Your task to perform on an android device: Search for razer huntsman on newegg, select the first entry, add it to the cart, then select checkout. Image 0: 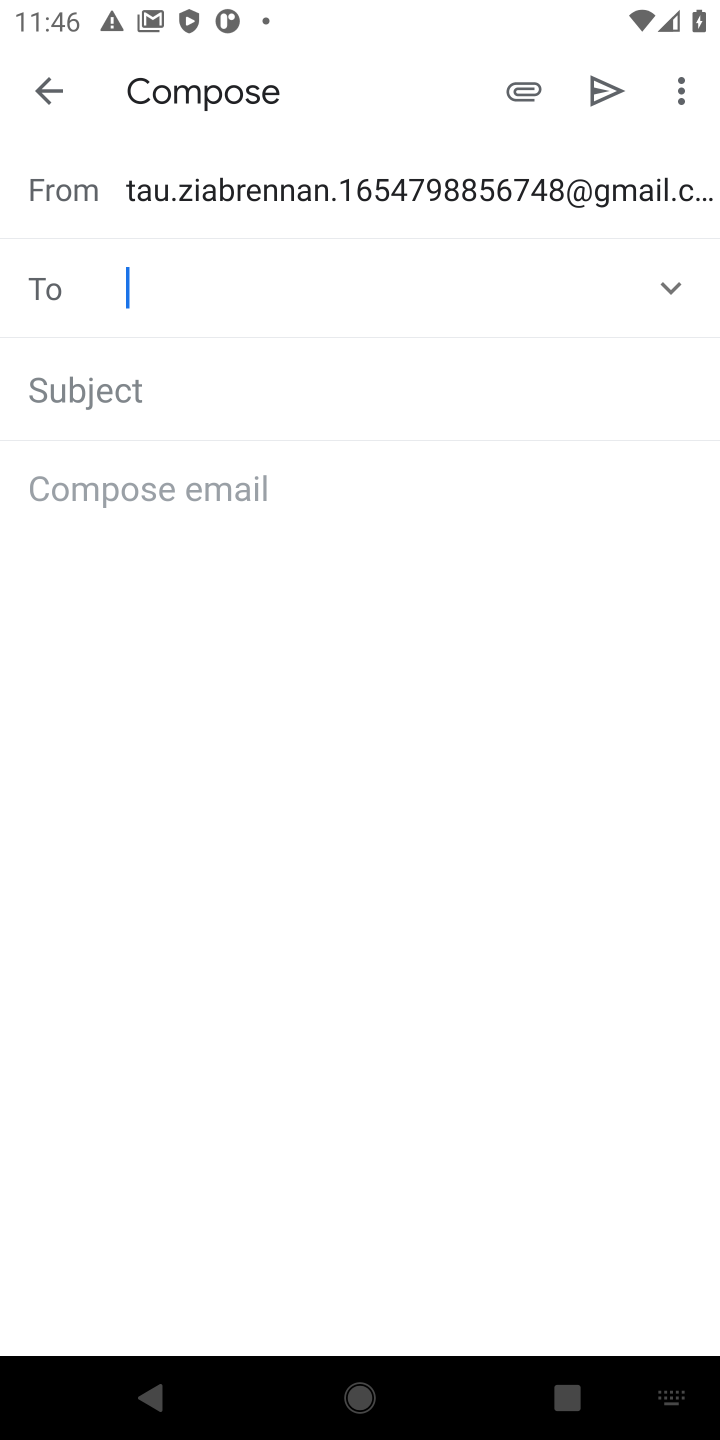
Step 0: press home button
Your task to perform on an android device: Search for razer huntsman on newegg, select the first entry, add it to the cart, then select checkout. Image 1: 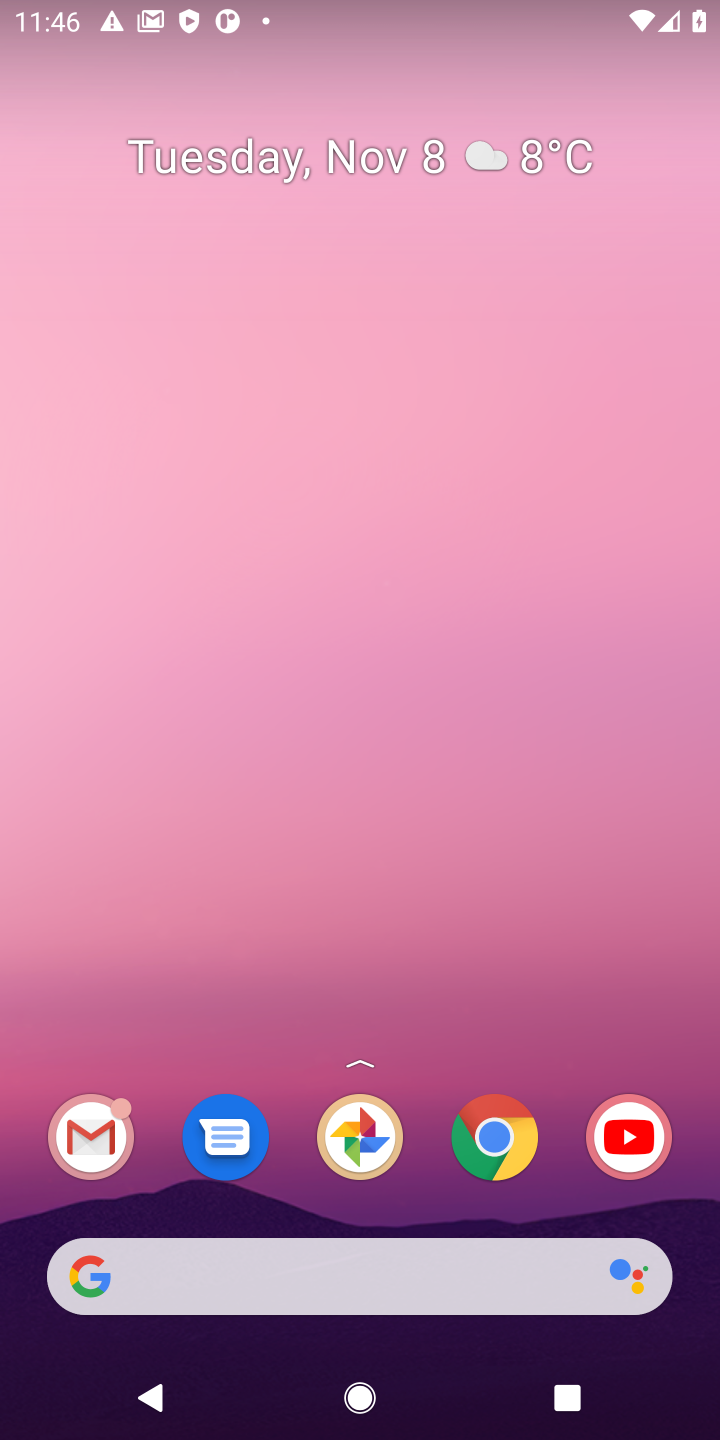
Step 1: click (498, 1147)
Your task to perform on an android device: Search for razer huntsman on newegg, select the first entry, add it to the cart, then select checkout. Image 2: 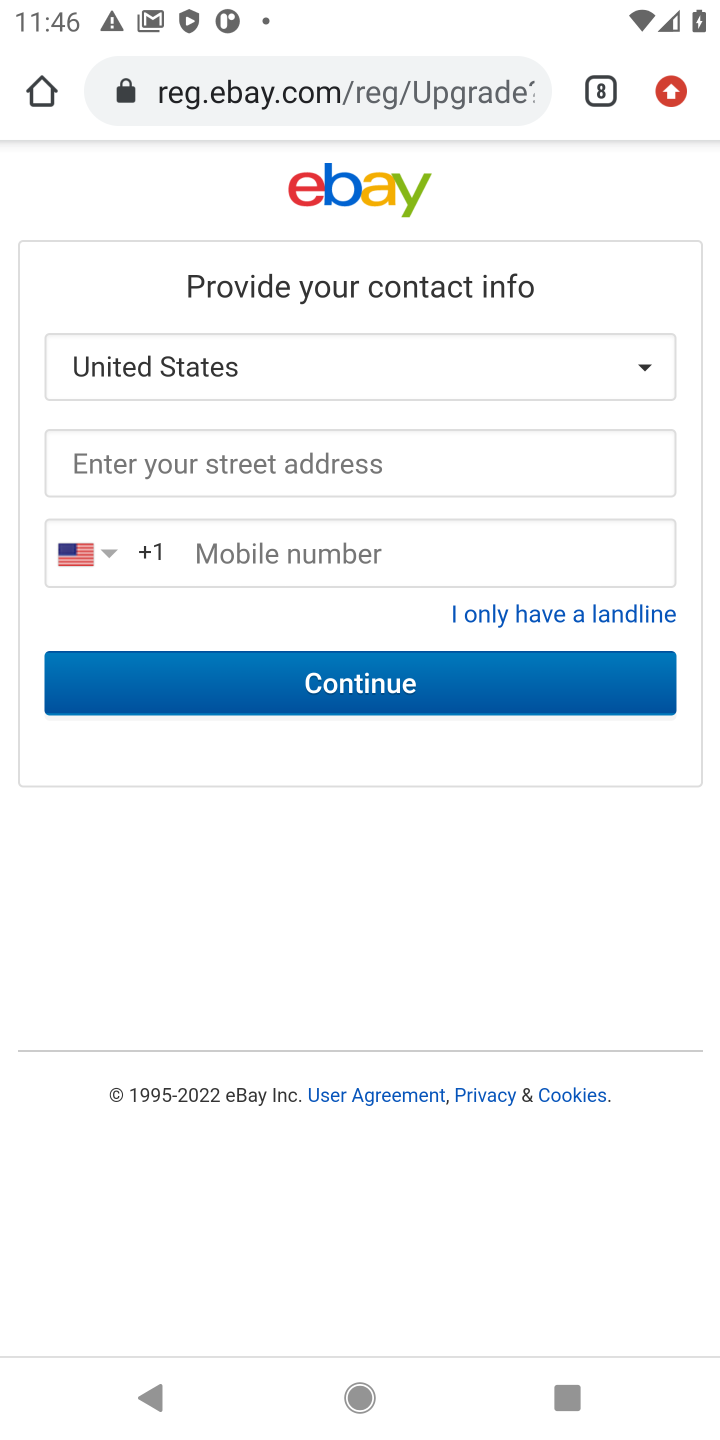
Step 2: click (593, 87)
Your task to perform on an android device: Search for razer huntsman on newegg, select the first entry, add it to the cart, then select checkout. Image 3: 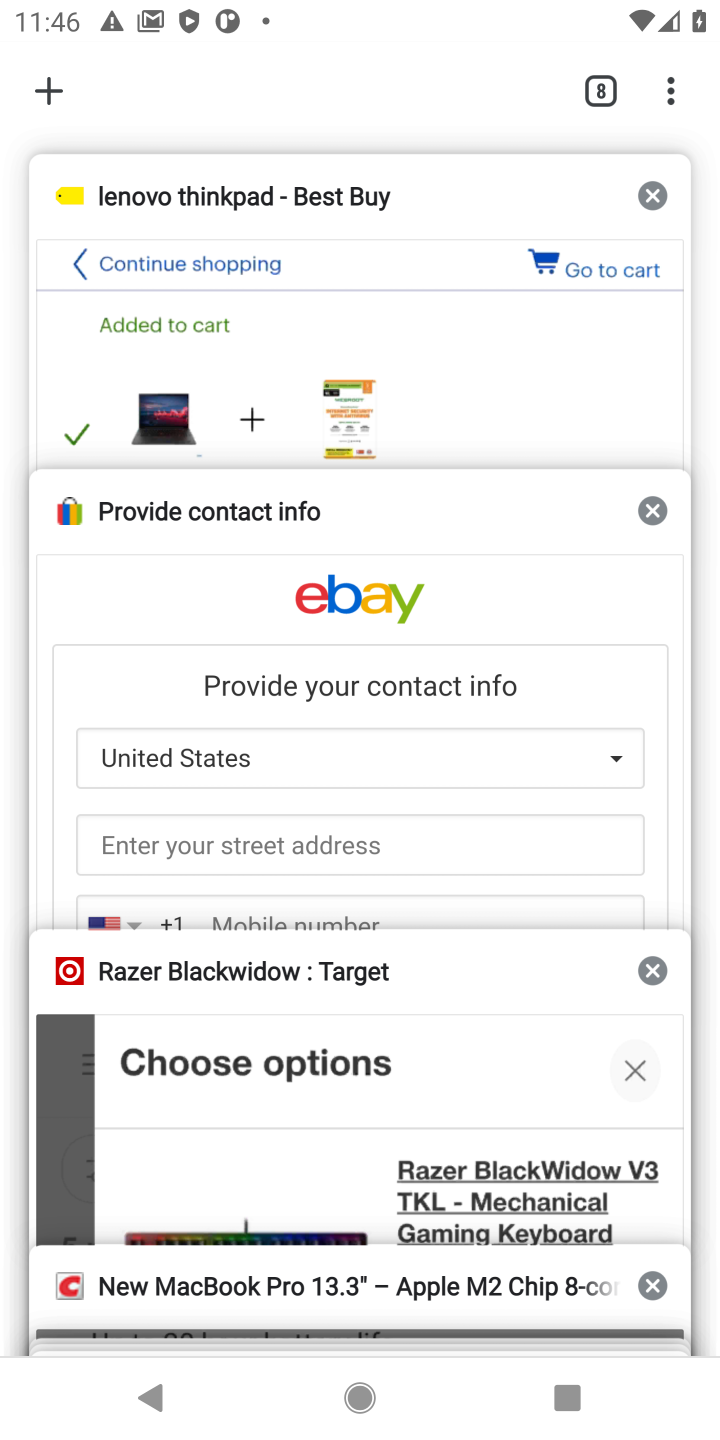
Step 3: drag from (215, 1278) to (424, 631)
Your task to perform on an android device: Search for razer huntsman on newegg, select the first entry, add it to the cart, then select checkout. Image 4: 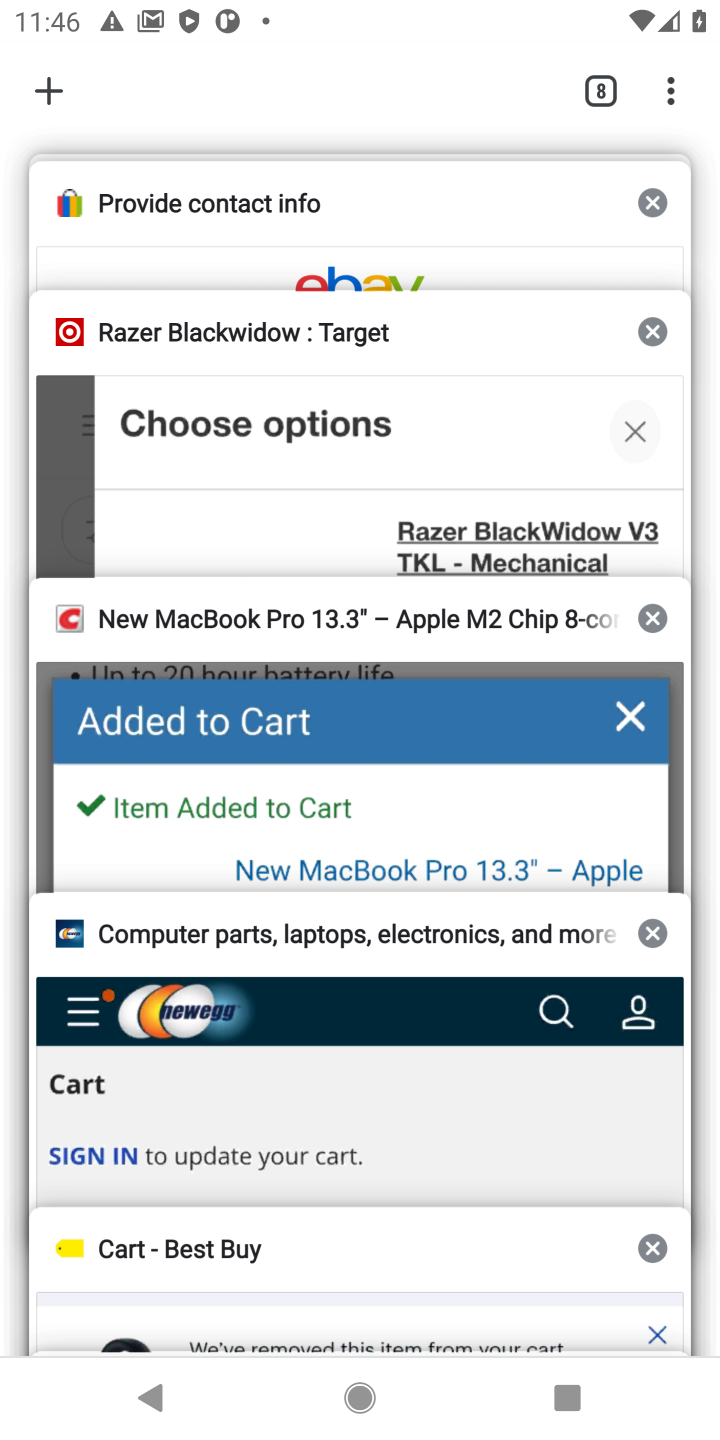
Step 4: click (375, 1079)
Your task to perform on an android device: Search for razer huntsman on newegg, select the first entry, add it to the cart, then select checkout. Image 5: 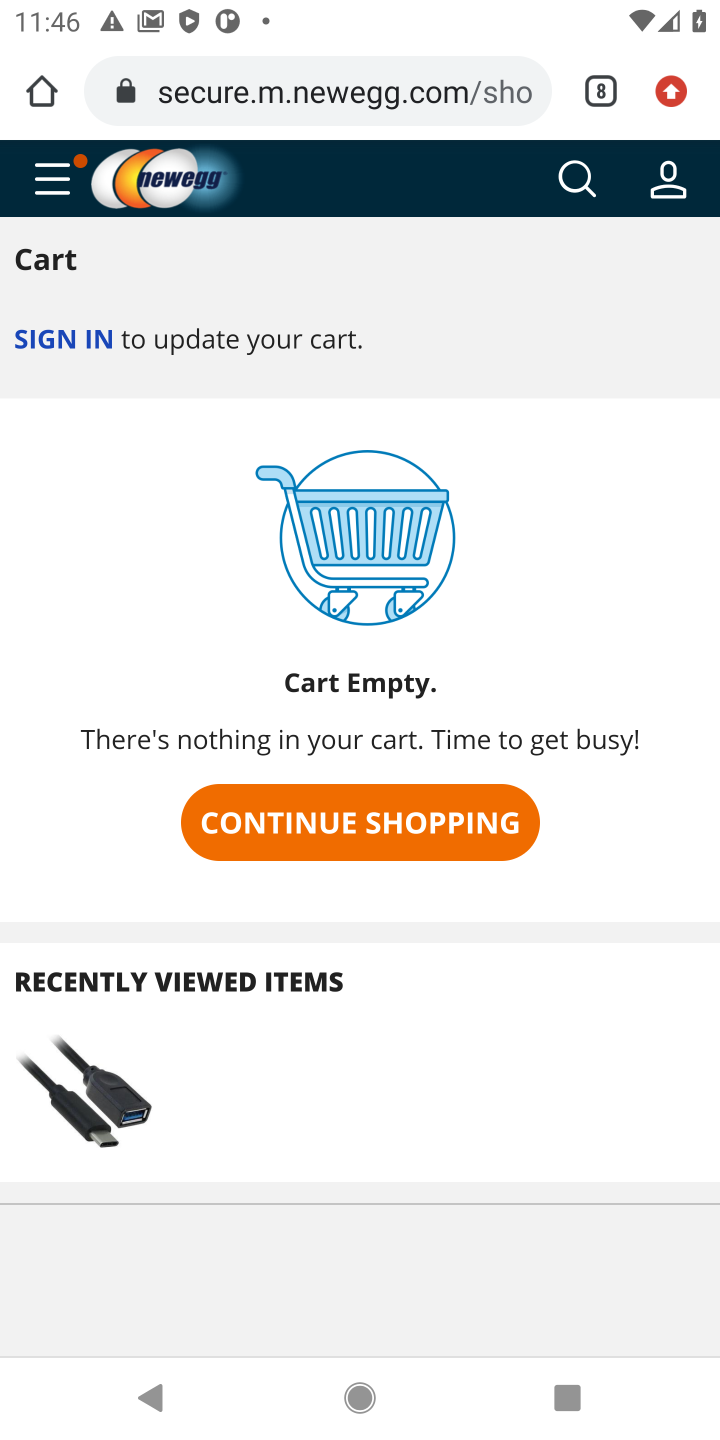
Step 5: click (578, 181)
Your task to perform on an android device: Search for razer huntsman on newegg, select the first entry, add it to the cart, then select checkout. Image 6: 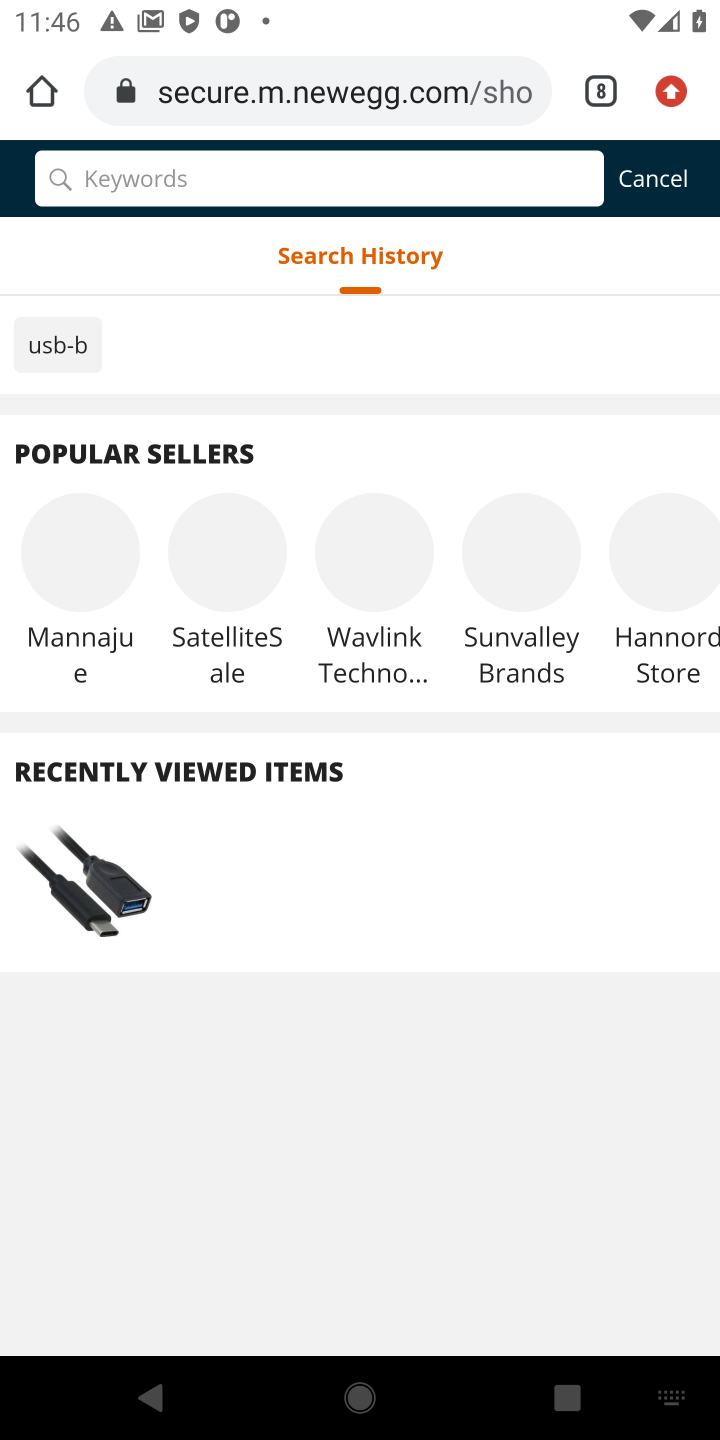
Step 6: type "razer huntsman"
Your task to perform on an android device: Search for razer huntsman on newegg, select the first entry, add it to the cart, then select checkout. Image 7: 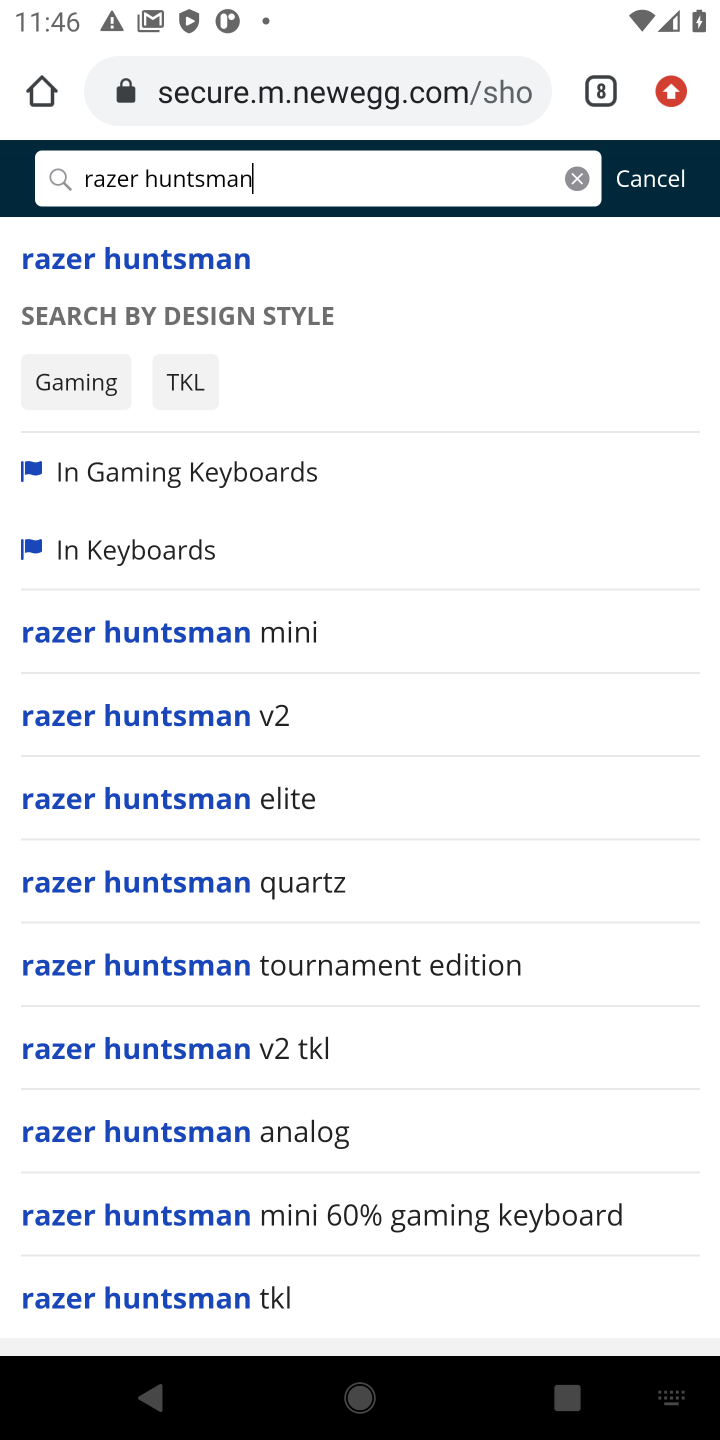
Step 7: click (161, 252)
Your task to perform on an android device: Search for razer huntsman on newegg, select the first entry, add it to the cart, then select checkout. Image 8: 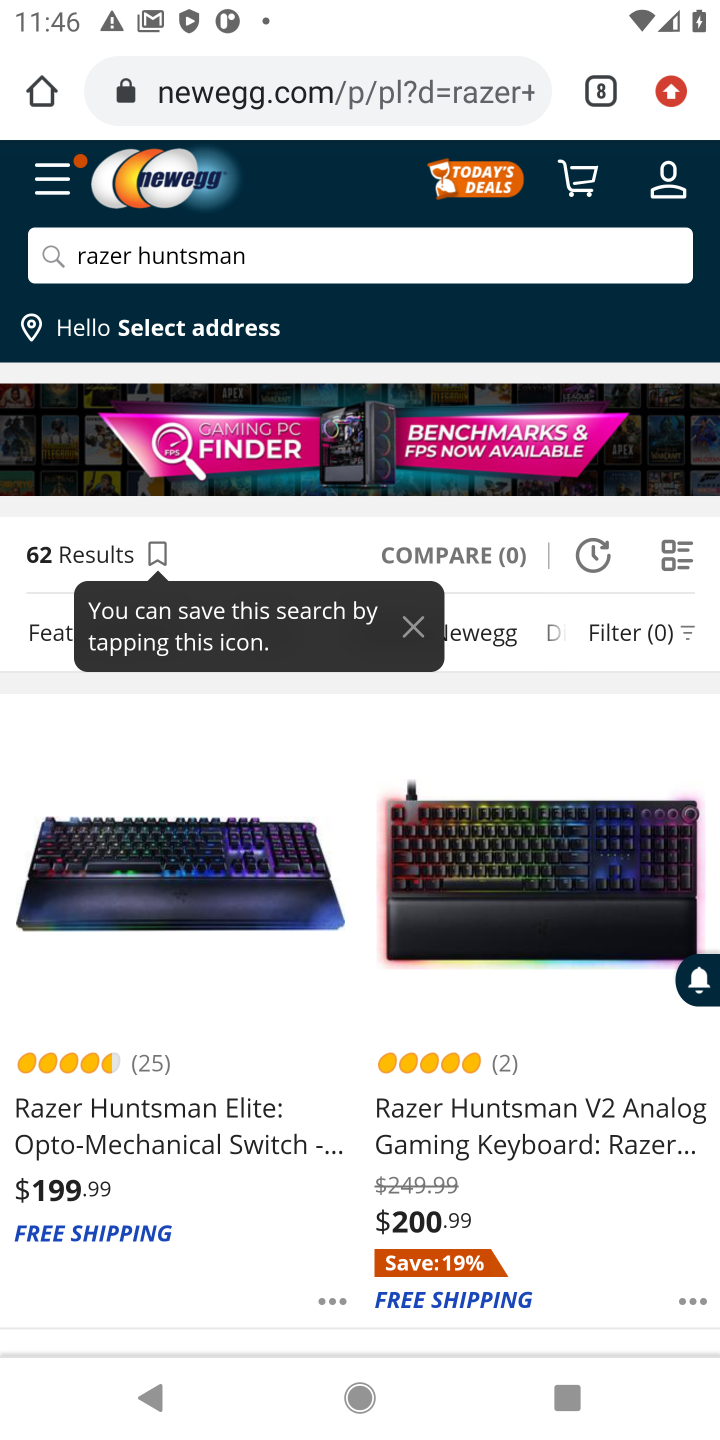
Step 8: click (120, 1122)
Your task to perform on an android device: Search for razer huntsman on newegg, select the first entry, add it to the cart, then select checkout. Image 9: 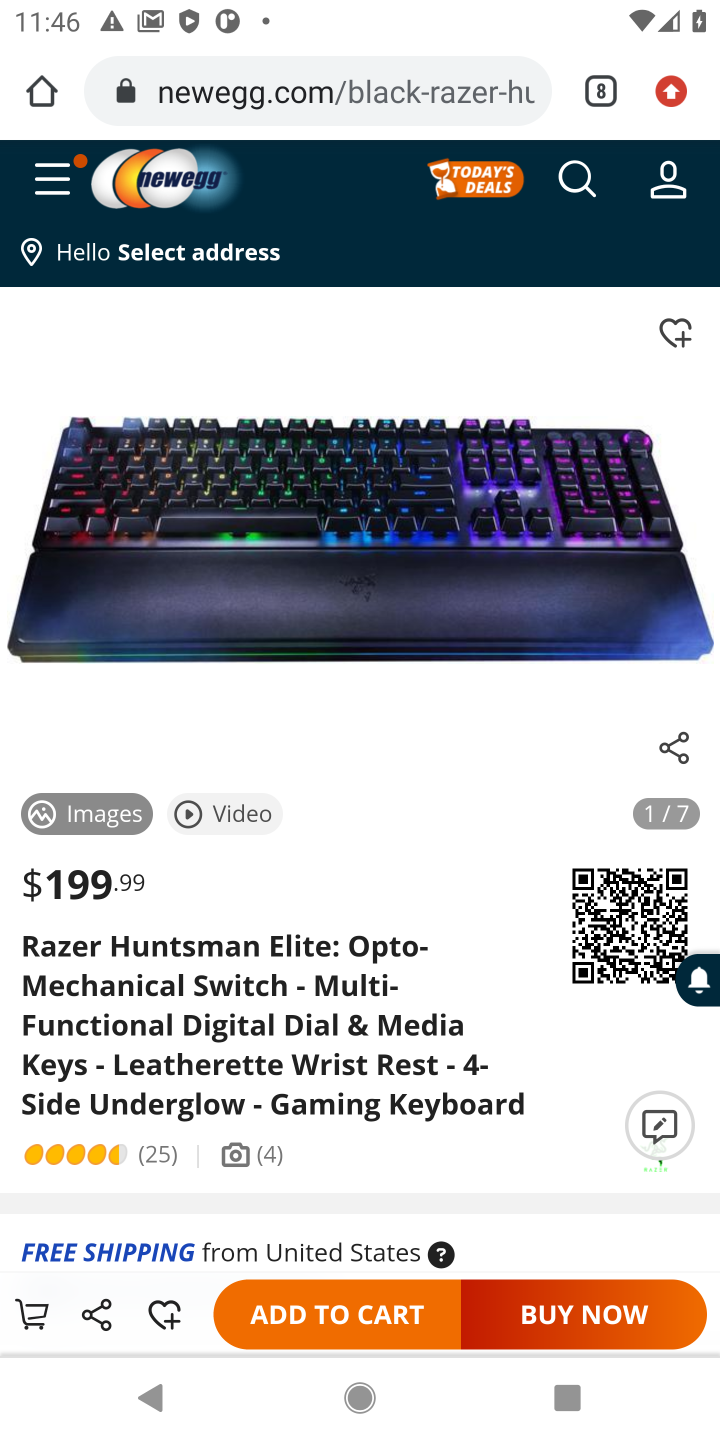
Step 9: click (343, 1310)
Your task to perform on an android device: Search for razer huntsman on newegg, select the first entry, add it to the cart, then select checkout. Image 10: 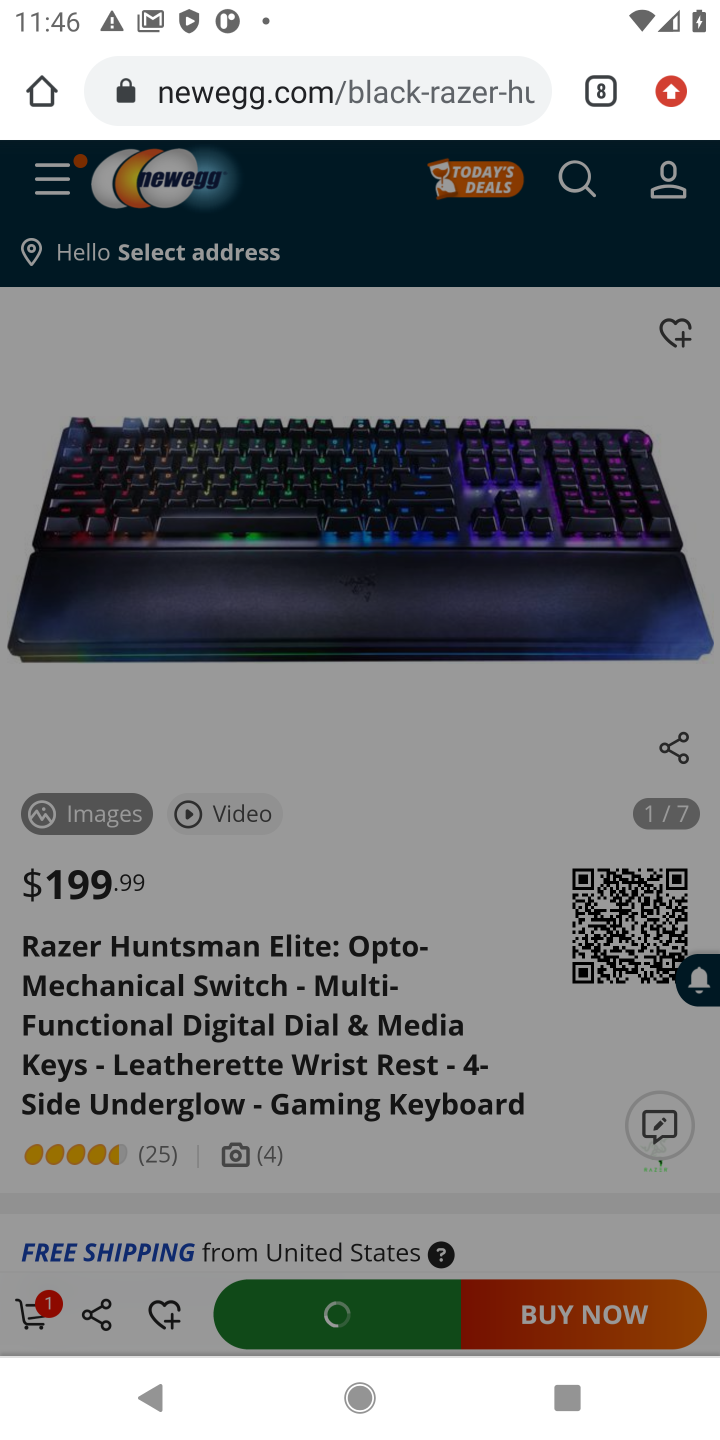
Step 10: click (47, 1312)
Your task to perform on an android device: Search for razer huntsman on newegg, select the first entry, add it to the cart, then select checkout. Image 11: 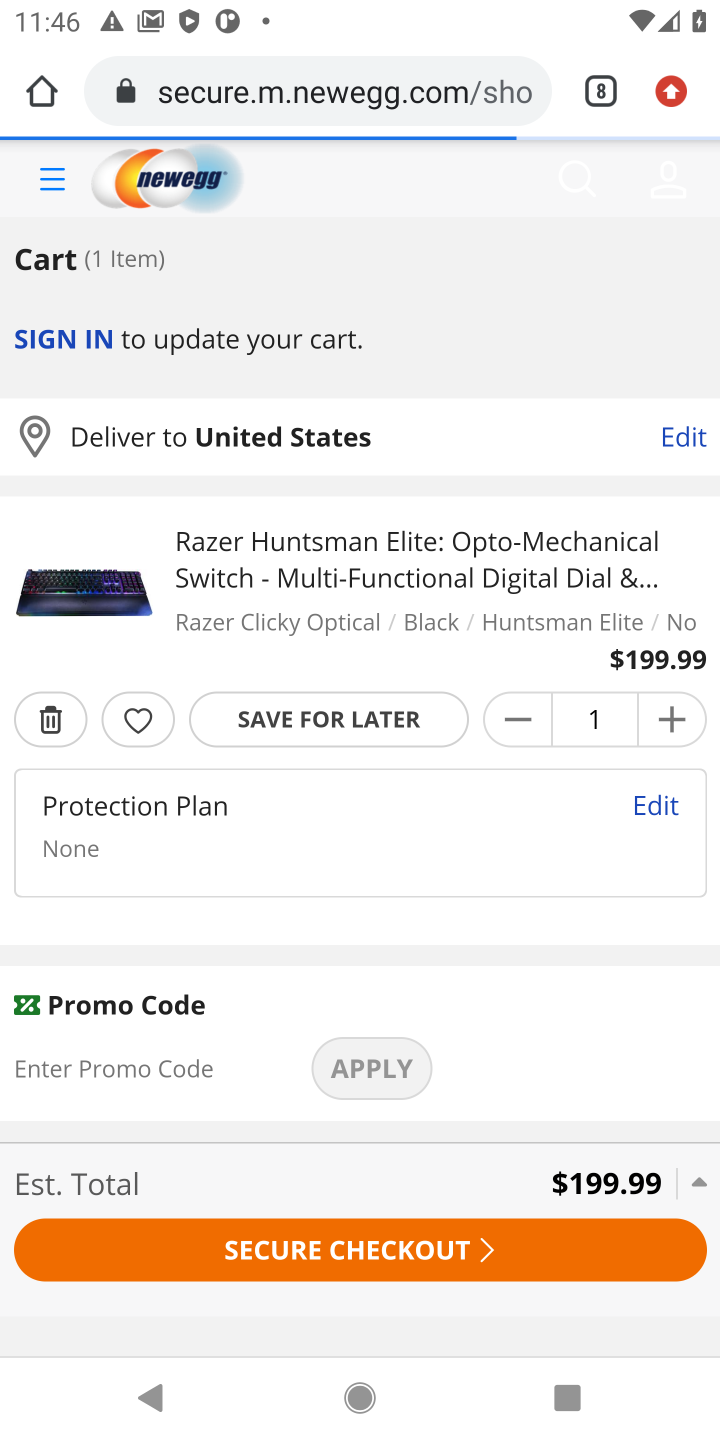
Step 11: click (428, 1239)
Your task to perform on an android device: Search for razer huntsman on newegg, select the first entry, add it to the cart, then select checkout. Image 12: 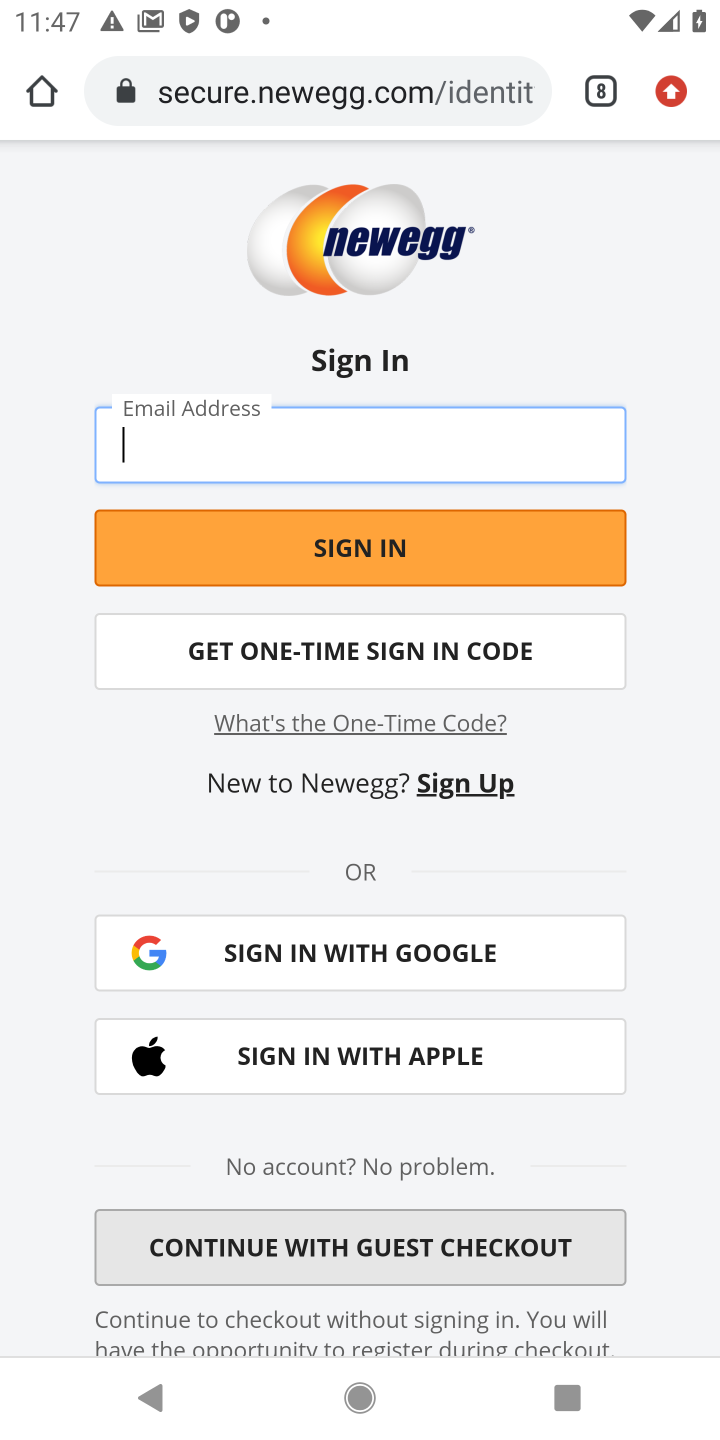
Step 12: task complete